Your task to perform on an android device: Open eBay Image 0: 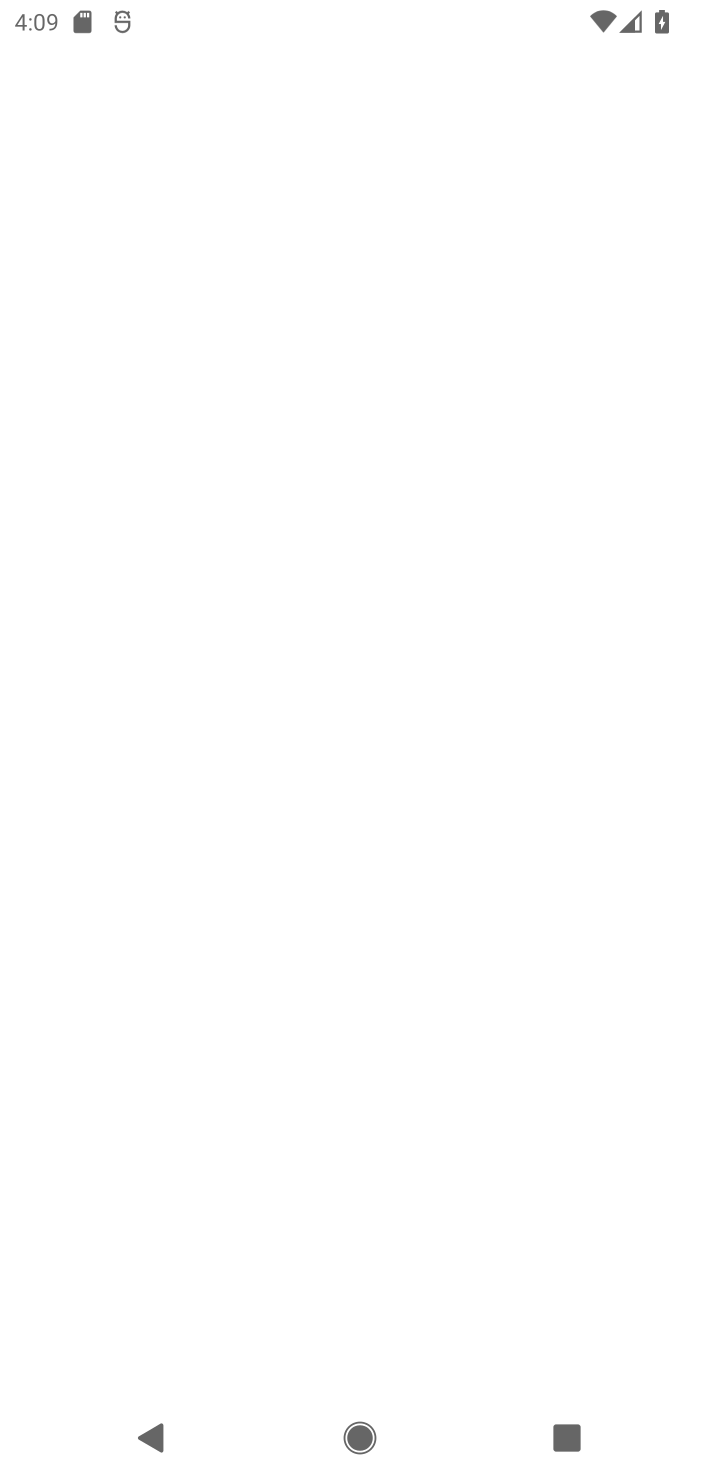
Step 0: press home button
Your task to perform on an android device: Open eBay Image 1: 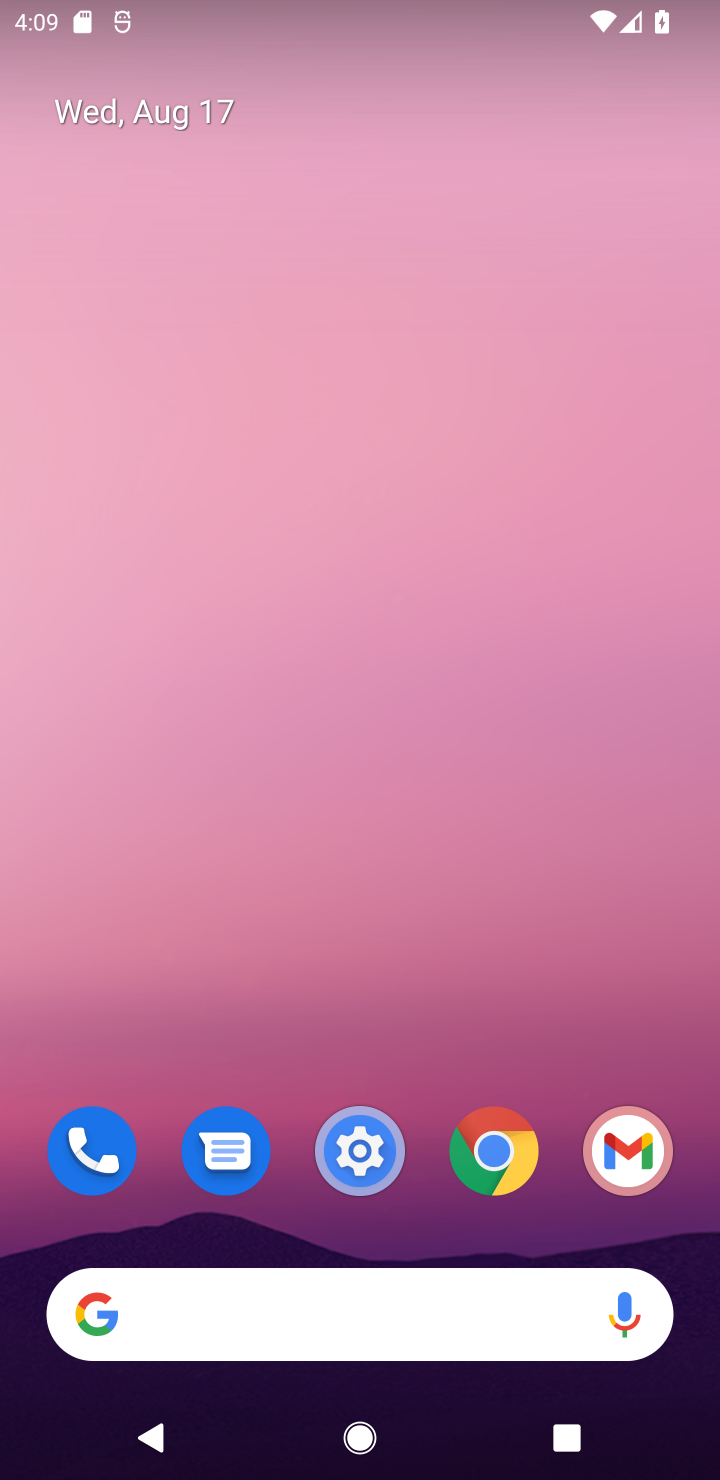
Step 1: click (508, 1153)
Your task to perform on an android device: Open eBay Image 2: 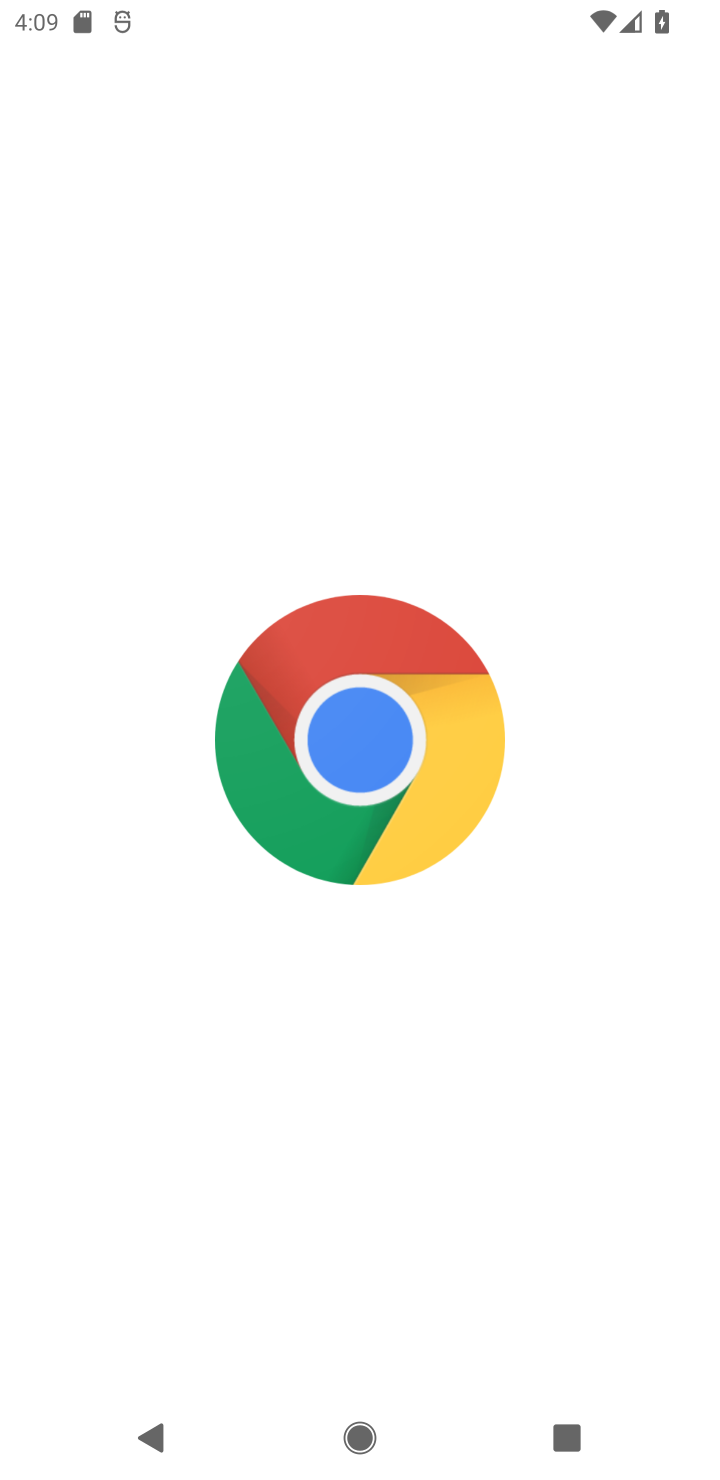
Step 2: task complete